Your task to perform on an android device: change the upload size in google photos Image 0: 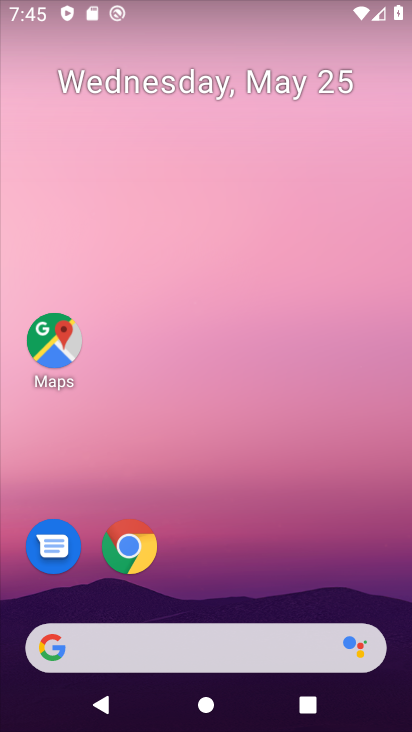
Step 0: drag from (210, 275) to (193, 18)
Your task to perform on an android device: change the upload size in google photos Image 1: 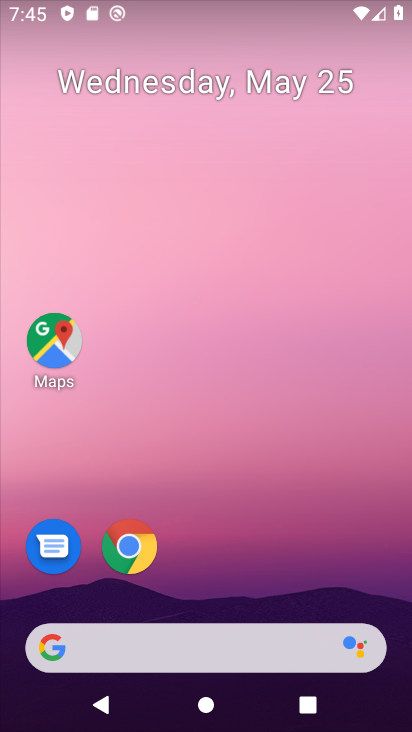
Step 1: drag from (194, 582) to (163, 49)
Your task to perform on an android device: change the upload size in google photos Image 2: 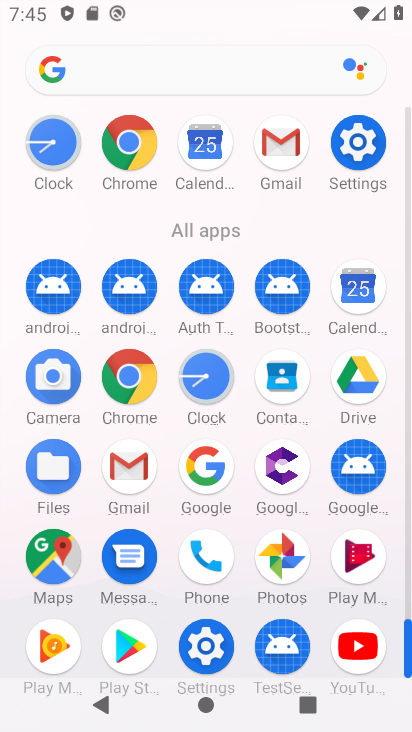
Step 2: click (282, 593)
Your task to perform on an android device: change the upload size in google photos Image 3: 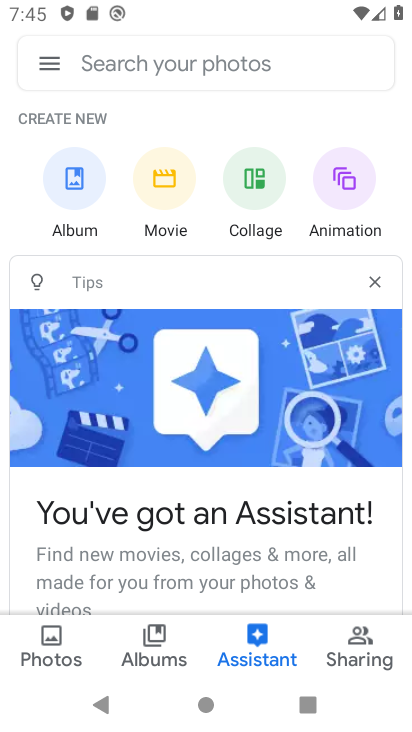
Step 3: click (47, 63)
Your task to perform on an android device: change the upload size in google photos Image 4: 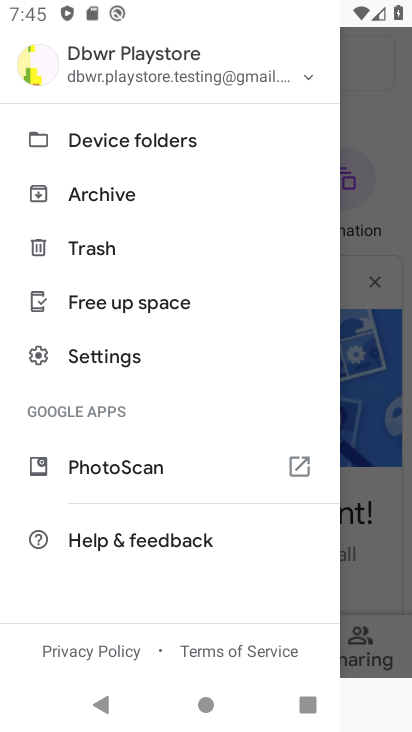
Step 4: click (102, 366)
Your task to perform on an android device: change the upload size in google photos Image 5: 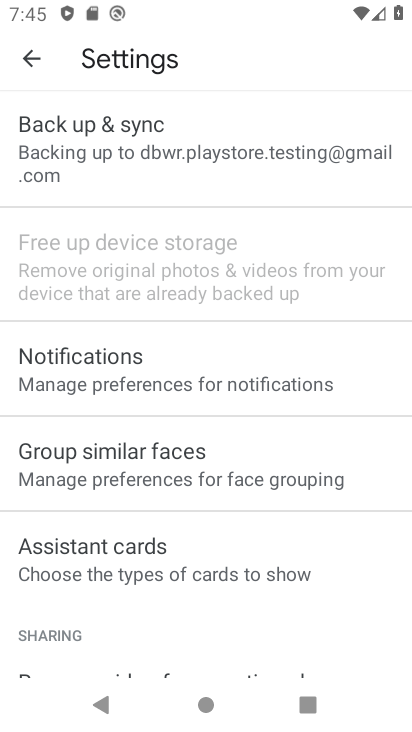
Step 5: click (108, 181)
Your task to perform on an android device: change the upload size in google photos Image 6: 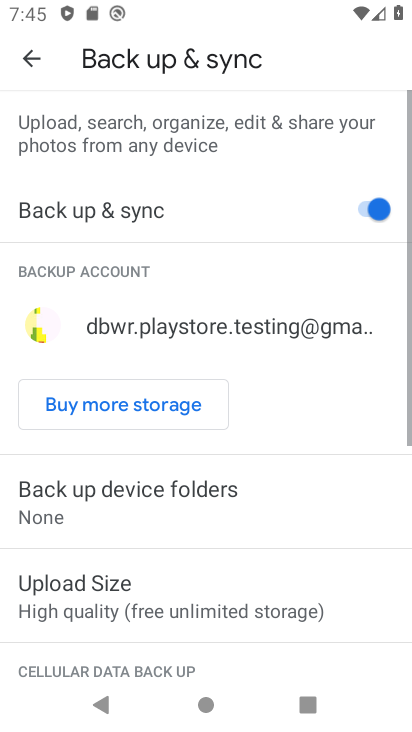
Step 6: drag from (215, 491) to (222, 170)
Your task to perform on an android device: change the upload size in google photos Image 7: 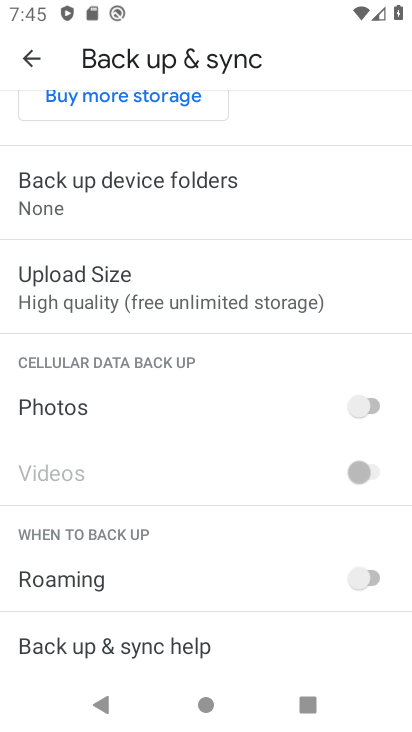
Step 7: click (186, 301)
Your task to perform on an android device: change the upload size in google photos Image 8: 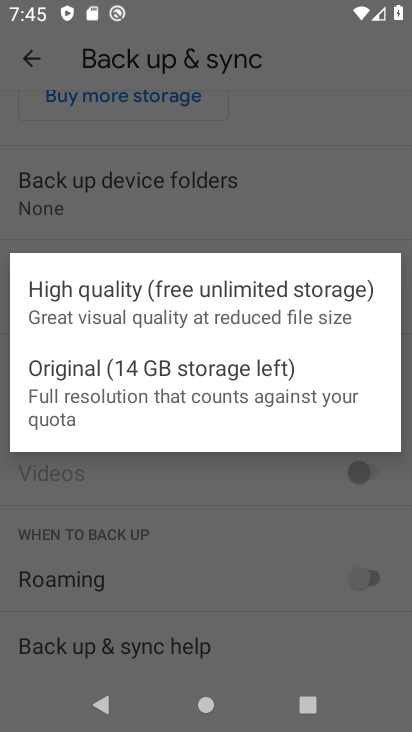
Step 8: click (165, 392)
Your task to perform on an android device: change the upload size in google photos Image 9: 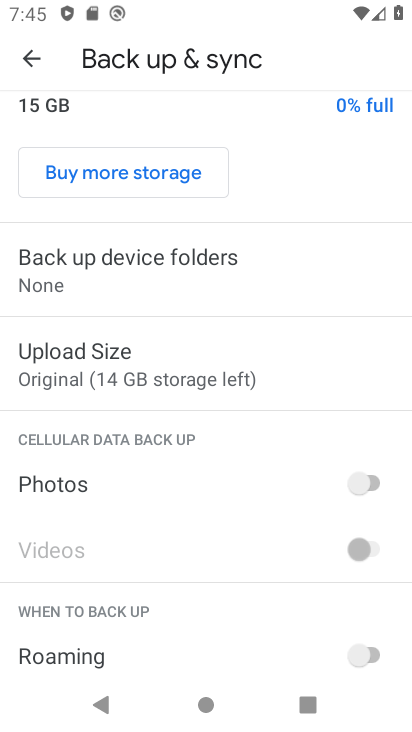
Step 9: task complete